Your task to perform on an android device: empty trash in the gmail app Image 0: 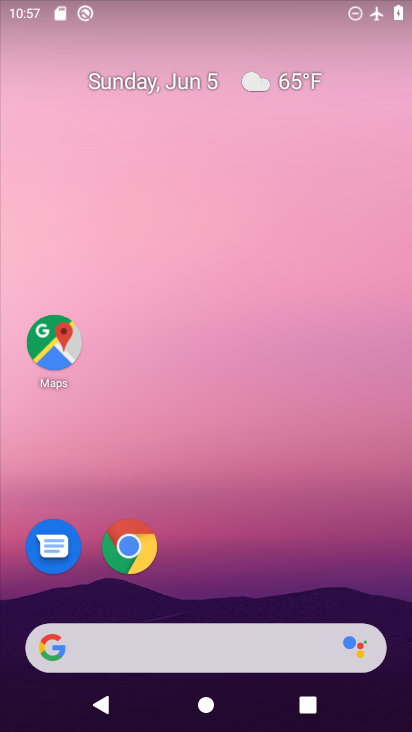
Step 0: drag from (217, 585) to (249, 337)
Your task to perform on an android device: empty trash in the gmail app Image 1: 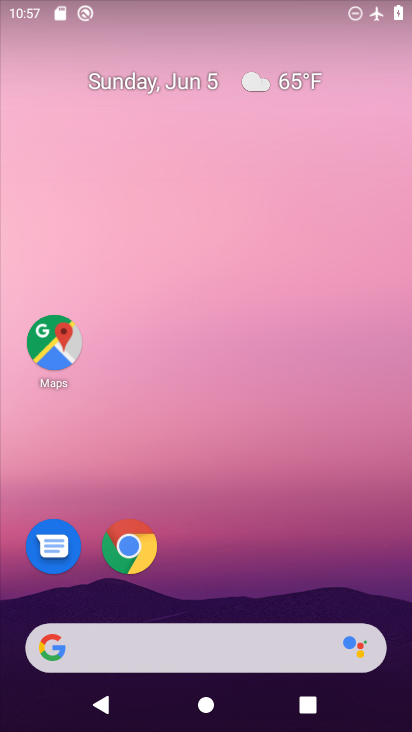
Step 1: drag from (160, 570) to (233, 44)
Your task to perform on an android device: empty trash in the gmail app Image 2: 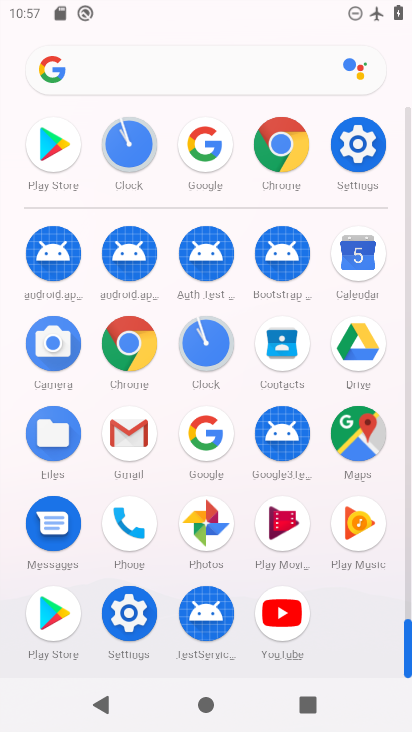
Step 2: click (138, 422)
Your task to perform on an android device: empty trash in the gmail app Image 3: 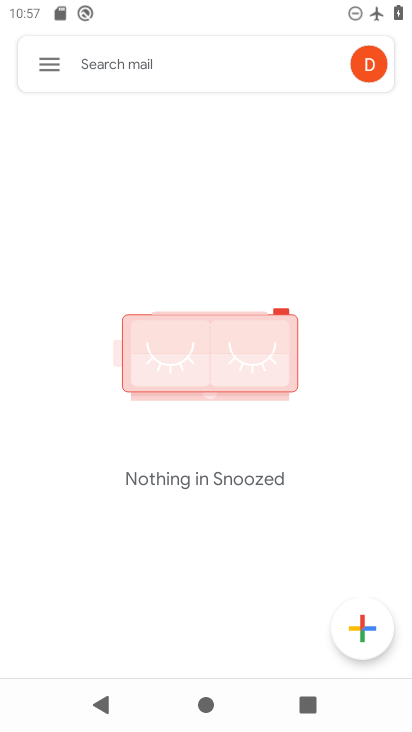
Step 3: click (39, 54)
Your task to perform on an android device: empty trash in the gmail app Image 4: 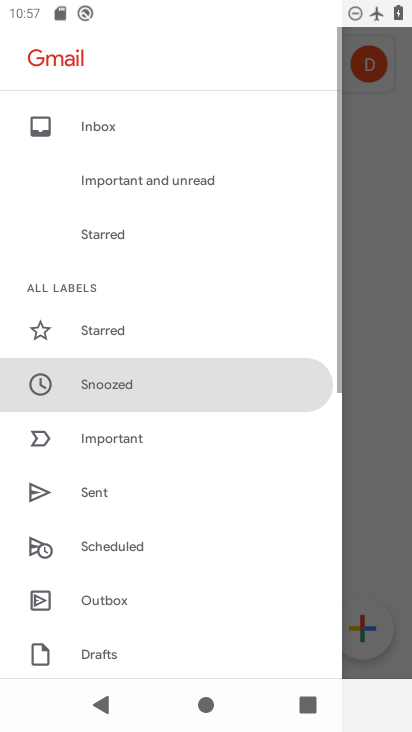
Step 4: drag from (149, 436) to (253, 6)
Your task to perform on an android device: empty trash in the gmail app Image 5: 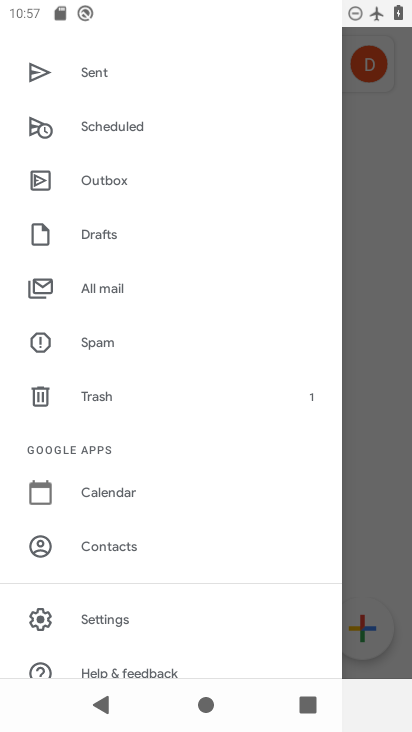
Step 5: click (94, 394)
Your task to perform on an android device: empty trash in the gmail app Image 6: 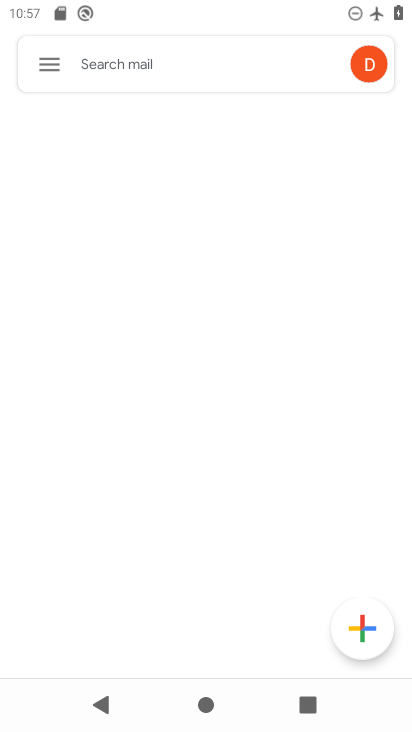
Step 6: task complete